Your task to perform on an android device: Open Wikipedia Image 0: 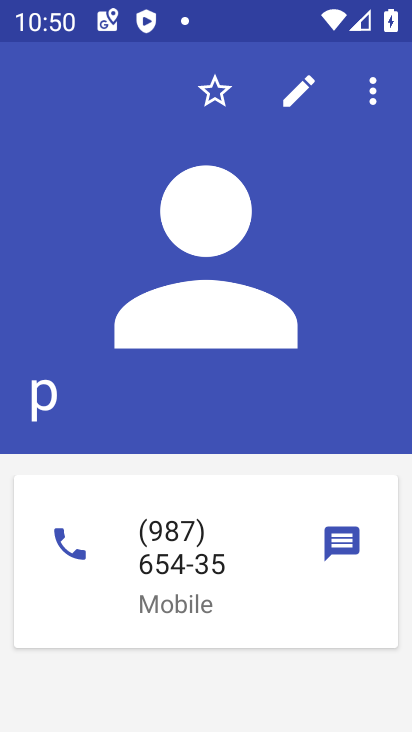
Step 0: press home button
Your task to perform on an android device: Open Wikipedia Image 1: 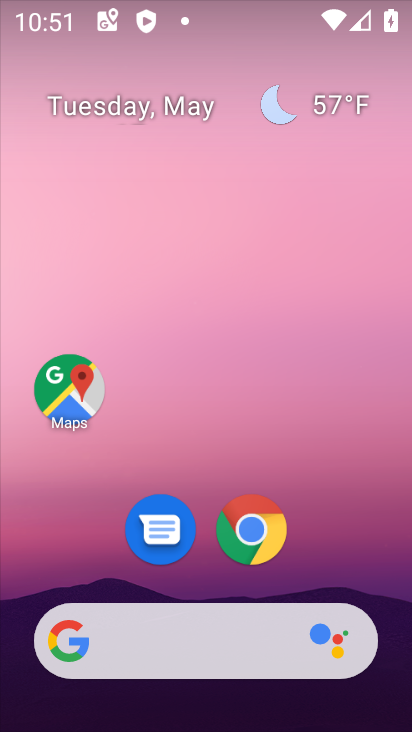
Step 1: click (144, 649)
Your task to perform on an android device: Open Wikipedia Image 2: 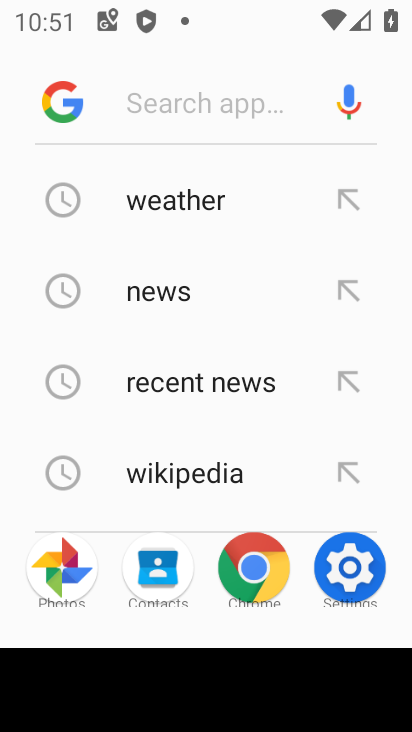
Step 2: click (195, 516)
Your task to perform on an android device: Open Wikipedia Image 3: 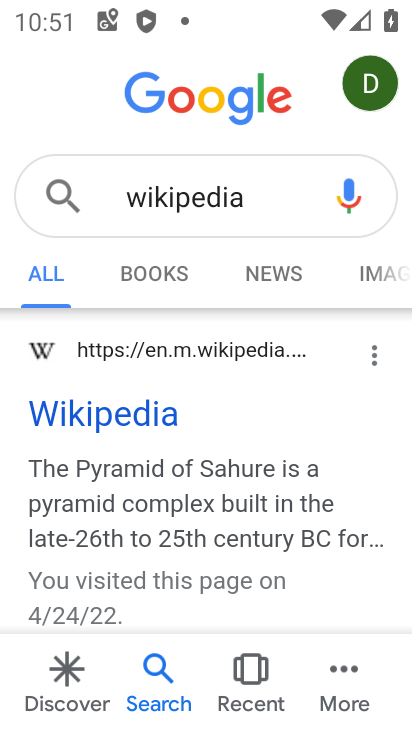
Step 3: click (103, 428)
Your task to perform on an android device: Open Wikipedia Image 4: 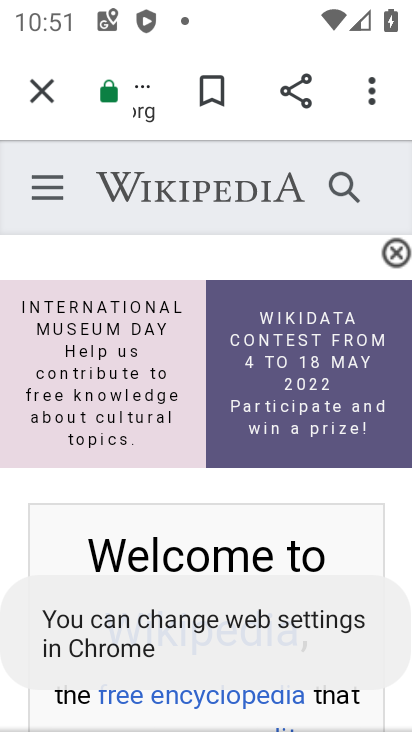
Step 4: task complete